Your task to perform on an android device: What's the weather today? Image 0: 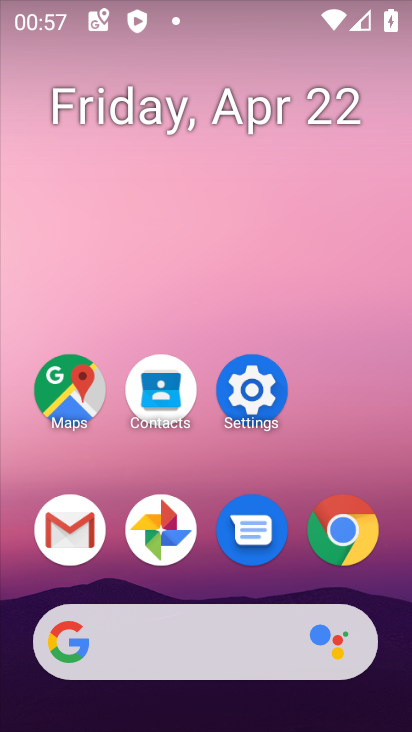
Step 0: drag from (11, 272) to (402, 279)
Your task to perform on an android device: What's the weather today? Image 1: 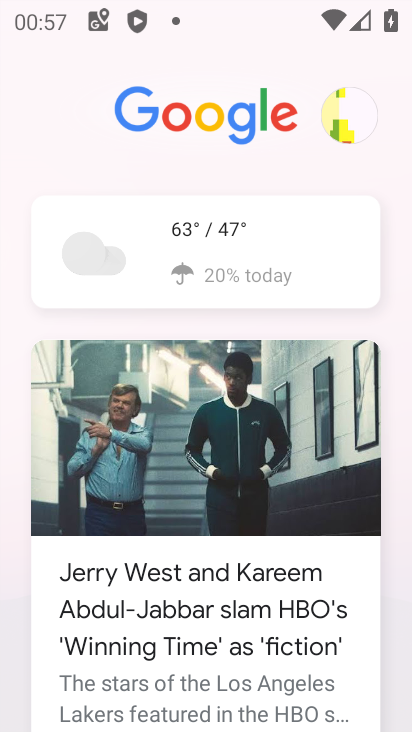
Step 1: click (198, 250)
Your task to perform on an android device: What's the weather today? Image 2: 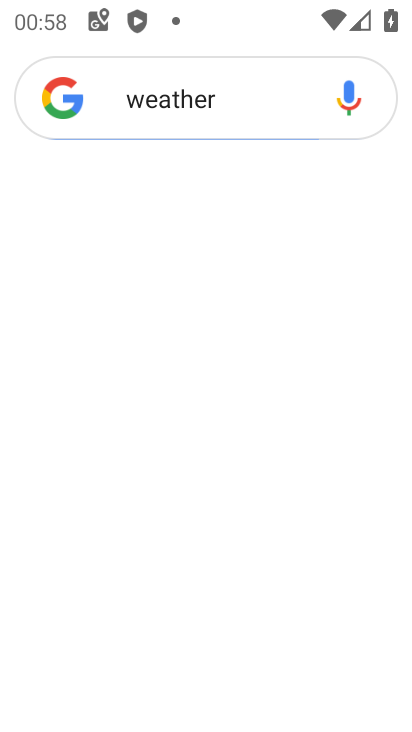
Step 2: click (209, 236)
Your task to perform on an android device: What's the weather today? Image 3: 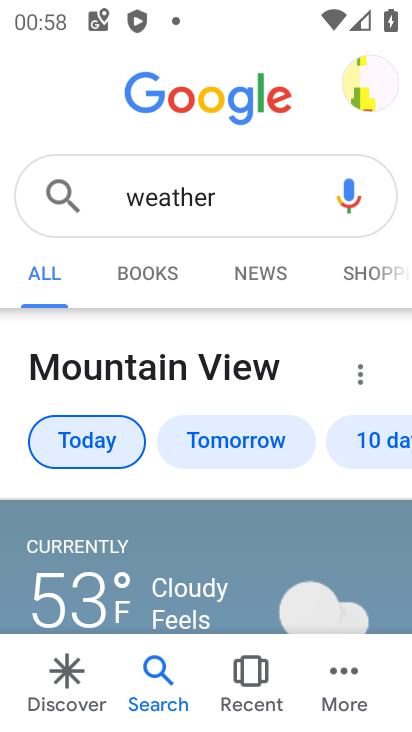
Step 3: task complete